Your task to perform on an android device: Is it going to rain this weekend? Image 0: 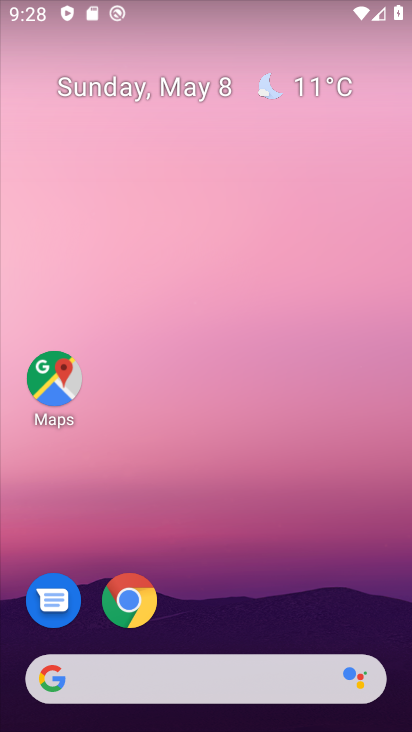
Step 0: drag from (282, 543) to (251, 6)
Your task to perform on an android device: Is it going to rain this weekend? Image 1: 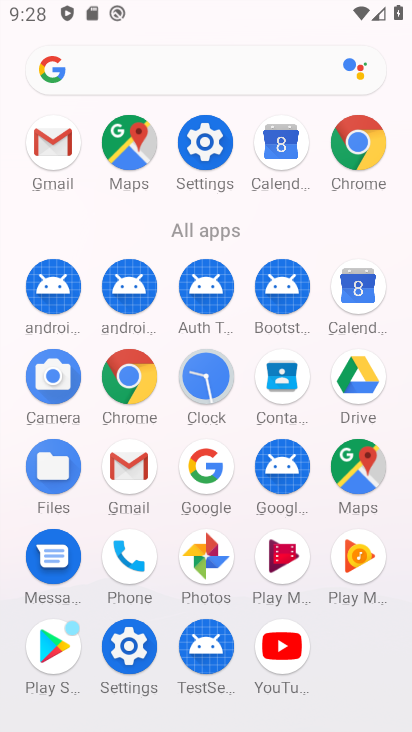
Step 1: drag from (7, 516) to (0, 249)
Your task to perform on an android device: Is it going to rain this weekend? Image 2: 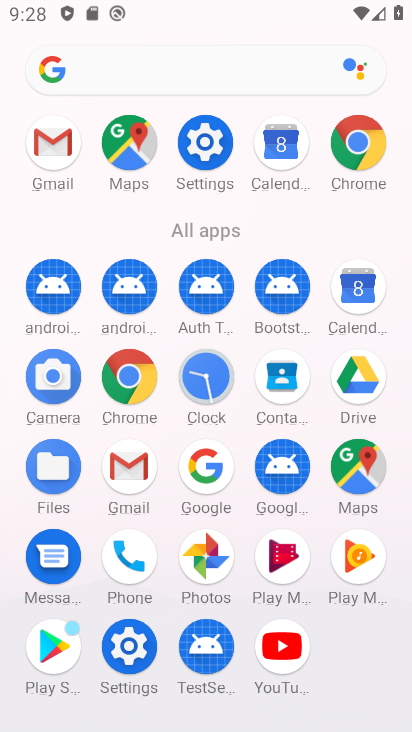
Step 2: click (357, 144)
Your task to perform on an android device: Is it going to rain this weekend? Image 3: 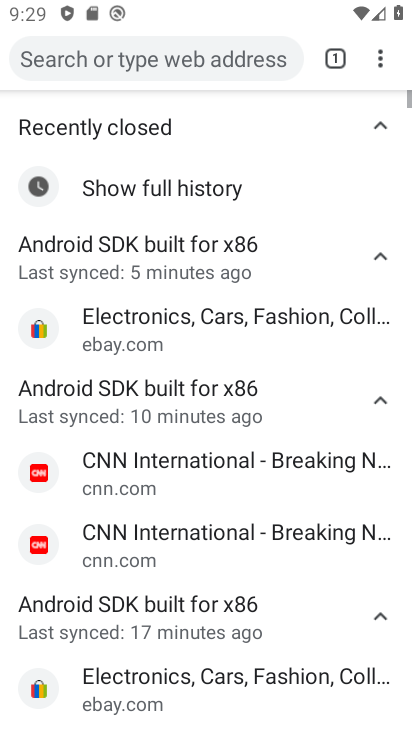
Step 3: click (139, 60)
Your task to perform on an android device: Is it going to rain this weekend? Image 4: 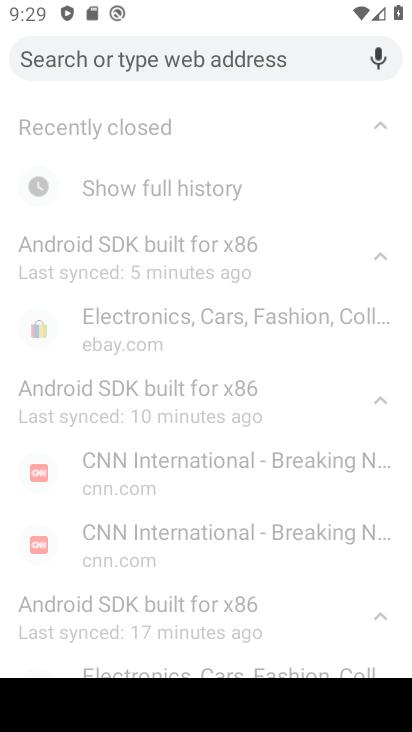
Step 4: click (142, 61)
Your task to perform on an android device: Is it going to rain this weekend? Image 5: 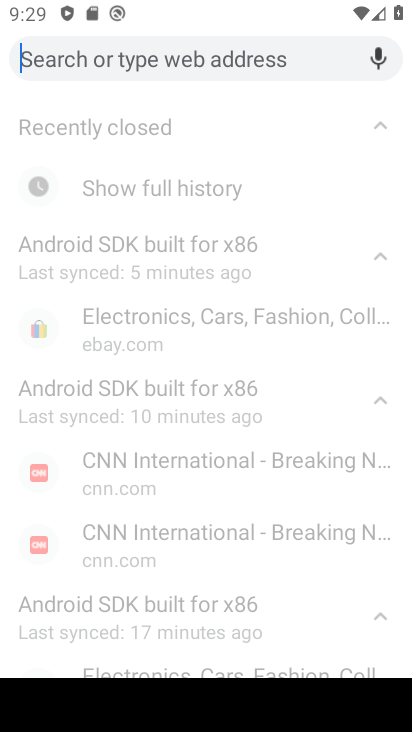
Step 5: type "Is it going to rain this weekend?"
Your task to perform on an android device: Is it going to rain this weekend? Image 6: 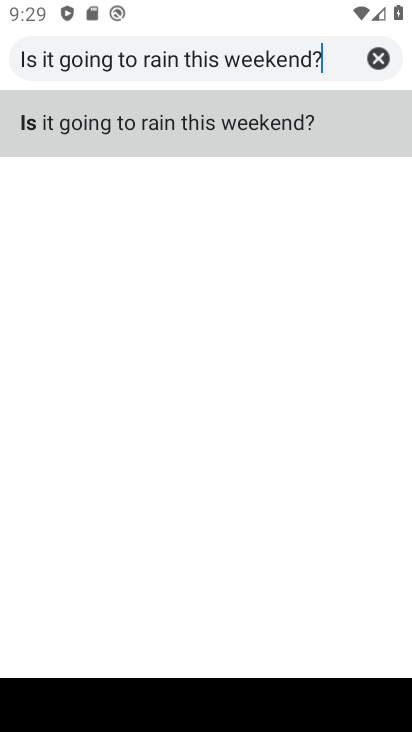
Step 6: type ""
Your task to perform on an android device: Is it going to rain this weekend? Image 7: 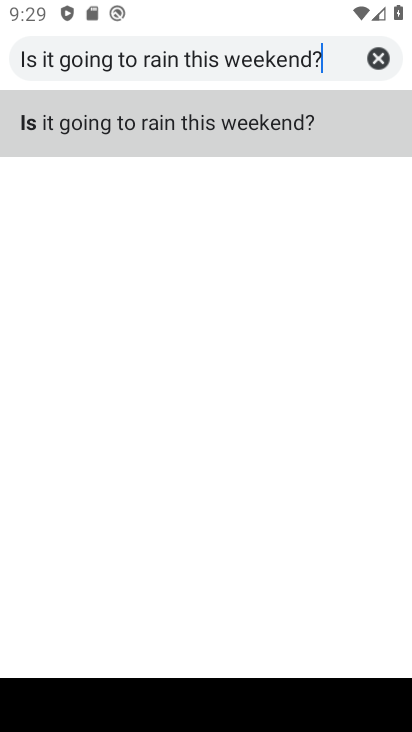
Step 7: click (208, 136)
Your task to perform on an android device: Is it going to rain this weekend? Image 8: 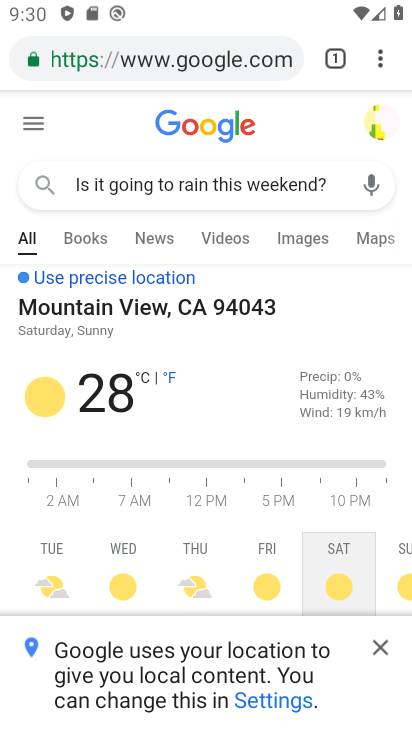
Step 8: task complete